Your task to perform on an android device: Go to Google maps Image 0: 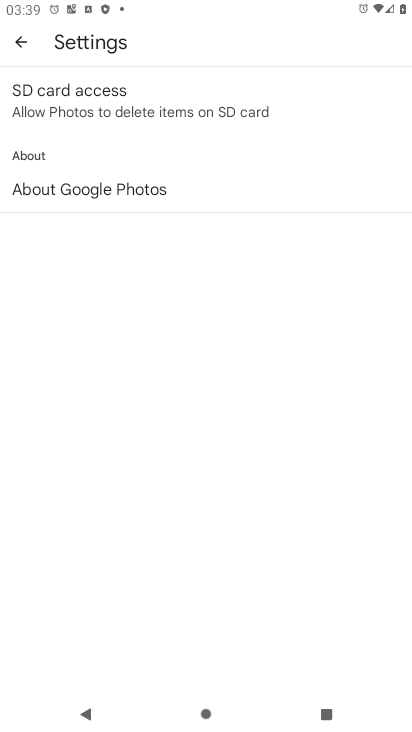
Step 0: press home button
Your task to perform on an android device: Go to Google maps Image 1: 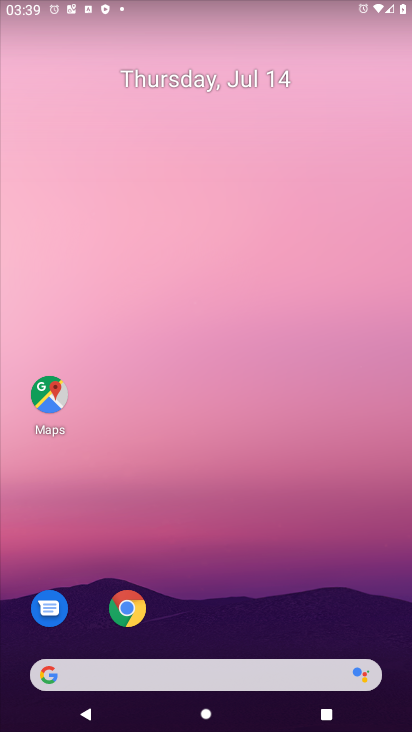
Step 1: click (47, 395)
Your task to perform on an android device: Go to Google maps Image 2: 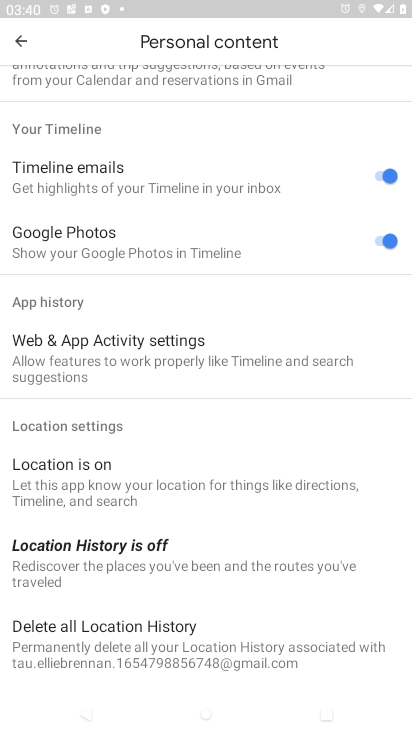
Step 2: task complete